Your task to perform on an android device: turn on airplane mode Image 0: 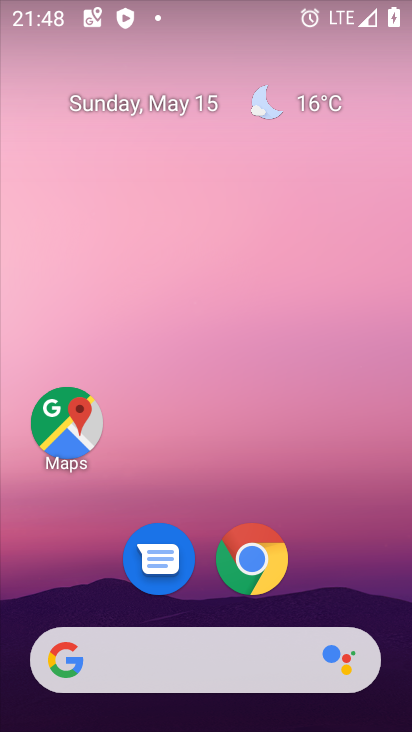
Step 0: drag from (213, 463) to (213, 50)
Your task to perform on an android device: turn on airplane mode Image 1: 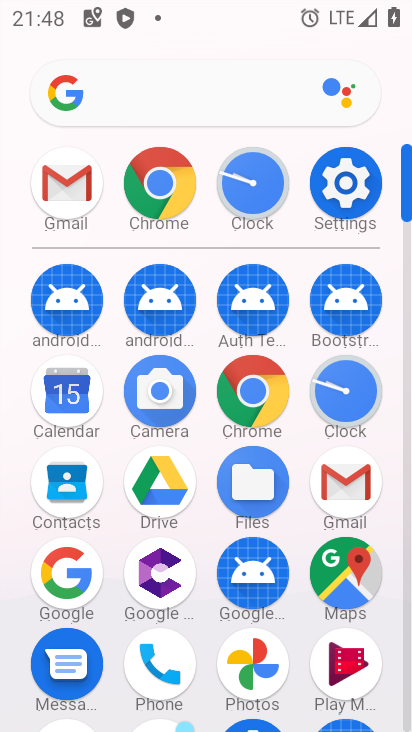
Step 1: click (349, 183)
Your task to perform on an android device: turn on airplane mode Image 2: 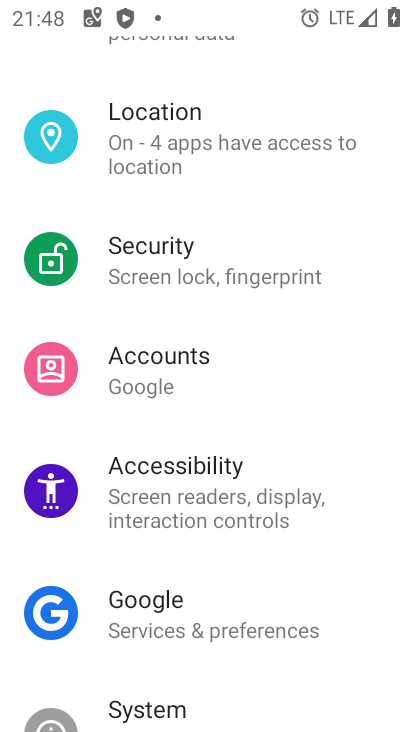
Step 2: drag from (219, 209) to (170, 699)
Your task to perform on an android device: turn on airplane mode Image 3: 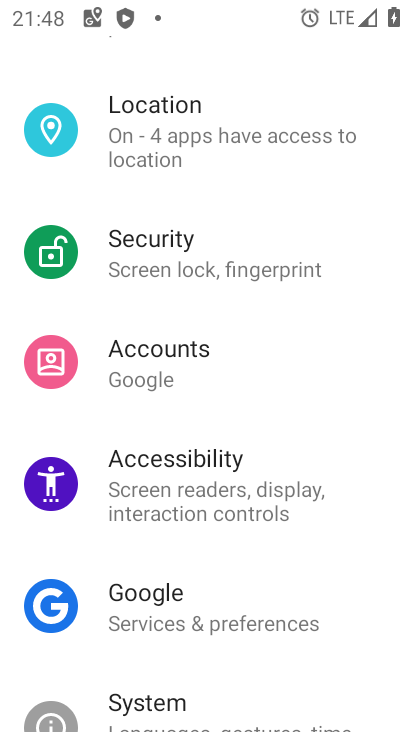
Step 3: drag from (234, 198) to (137, 707)
Your task to perform on an android device: turn on airplane mode Image 4: 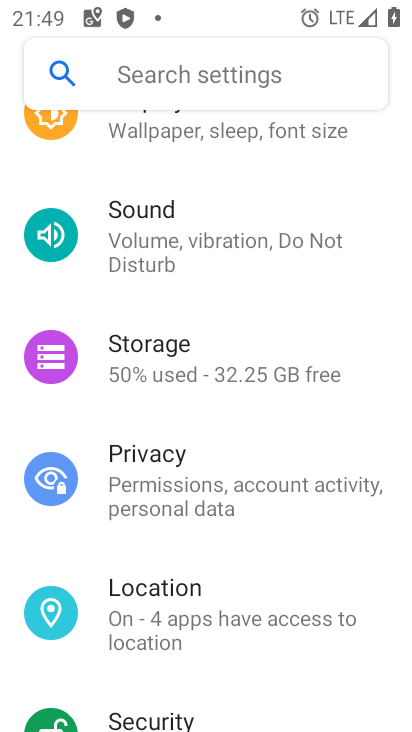
Step 4: drag from (214, 201) to (211, 623)
Your task to perform on an android device: turn on airplane mode Image 5: 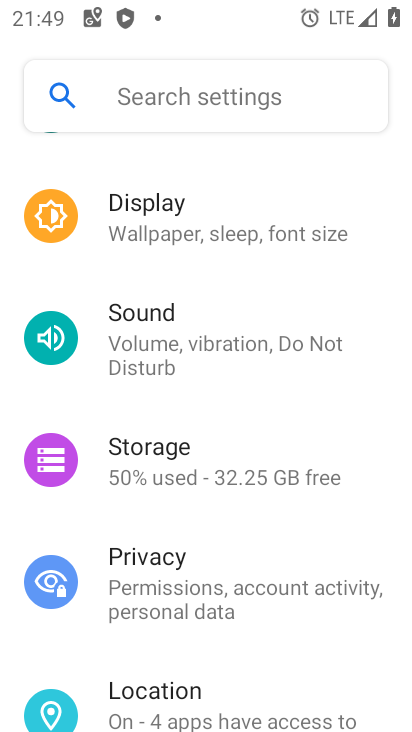
Step 5: drag from (268, 254) to (271, 654)
Your task to perform on an android device: turn on airplane mode Image 6: 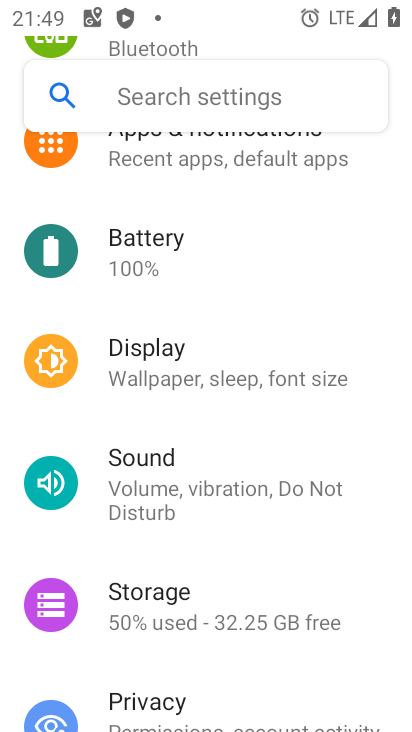
Step 6: drag from (218, 200) to (213, 598)
Your task to perform on an android device: turn on airplane mode Image 7: 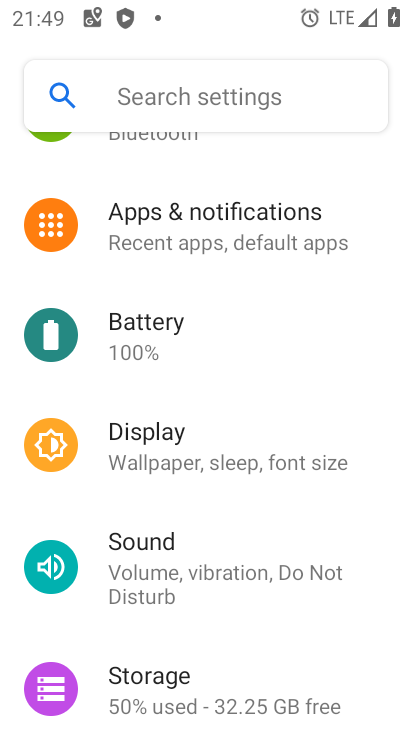
Step 7: drag from (184, 287) to (197, 648)
Your task to perform on an android device: turn on airplane mode Image 8: 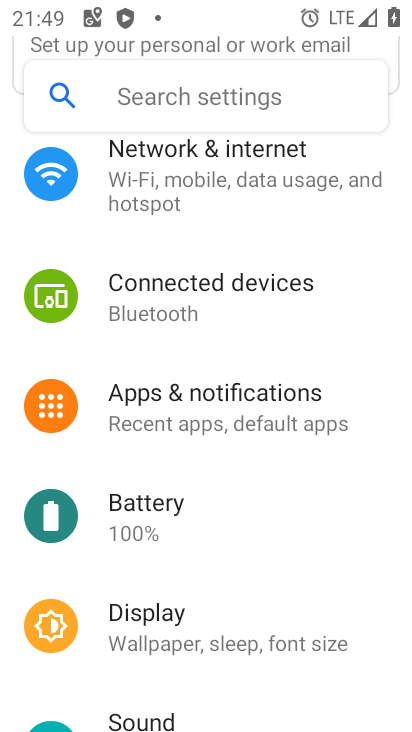
Step 8: drag from (221, 228) to (245, 510)
Your task to perform on an android device: turn on airplane mode Image 9: 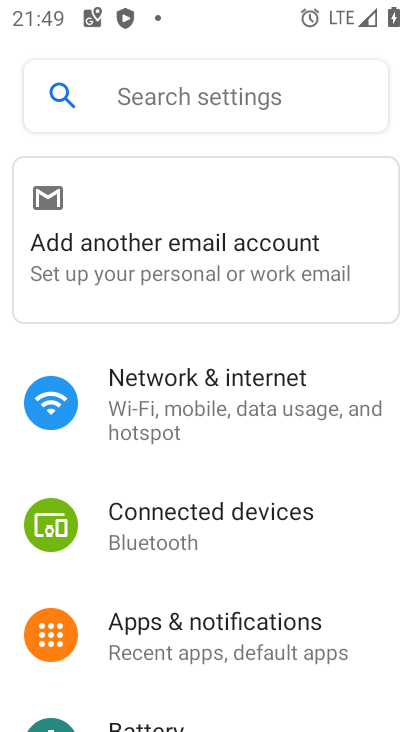
Step 9: click (202, 376)
Your task to perform on an android device: turn on airplane mode Image 10: 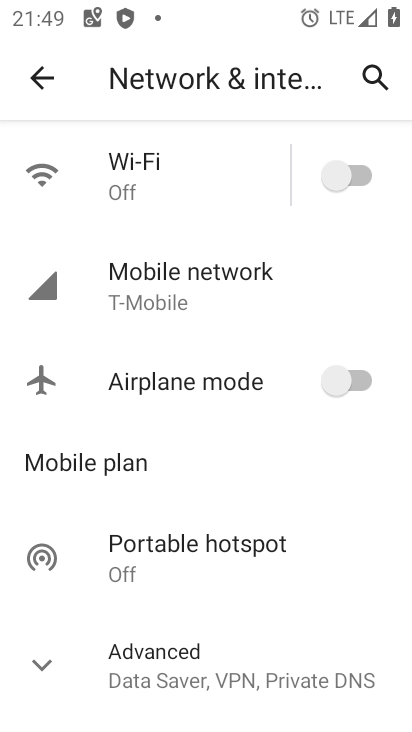
Step 10: click (330, 380)
Your task to perform on an android device: turn on airplane mode Image 11: 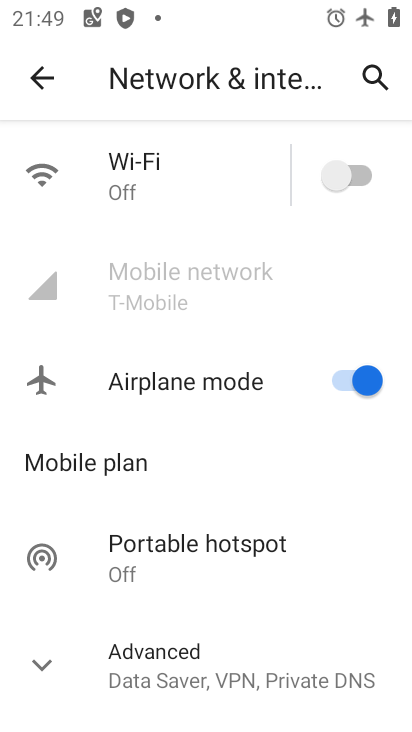
Step 11: task complete